Your task to perform on an android device: Open the Play Movies app and select the watchlist tab. Image 0: 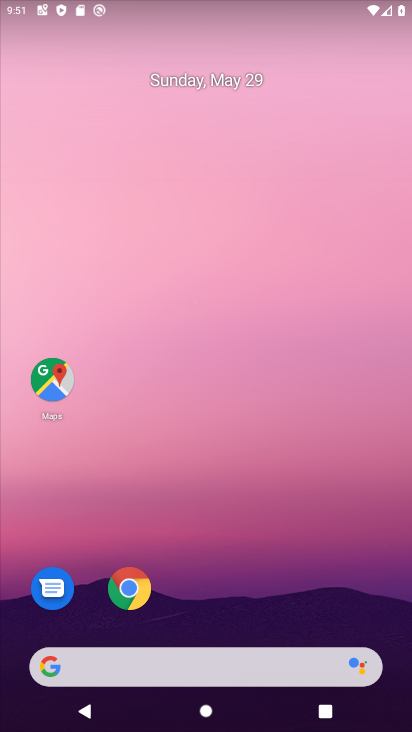
Step 0: drag from (283, 578) to (292, 91)
Your task to perform on an android device: Open the Play Movies app and select the watchlist tab. Image 1: 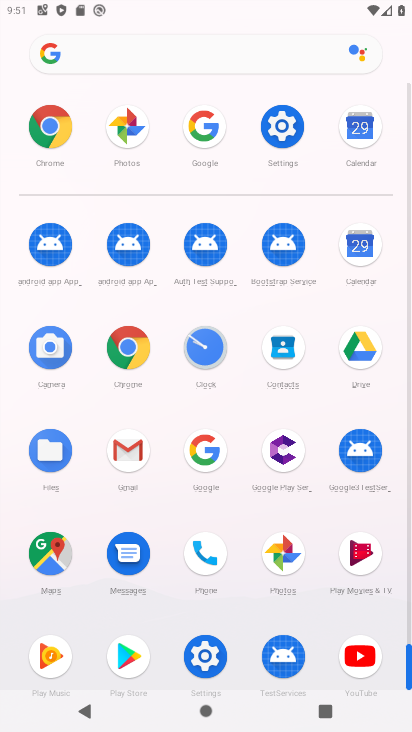
Step 1: click (356, 558)
Your task to perform on an android device: Open the Play Movies app and select the watchlist tab. Image 2: 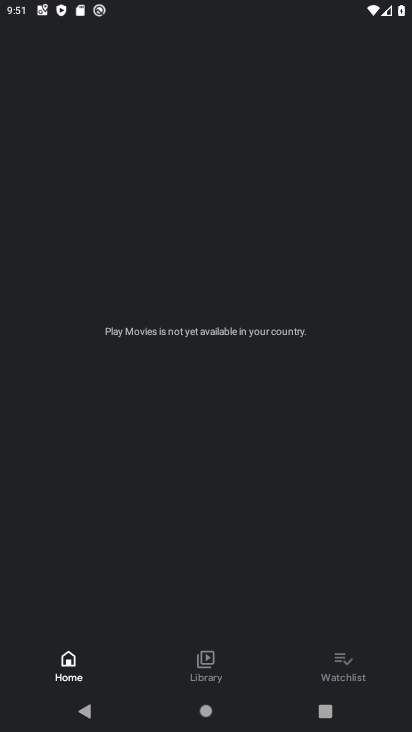
Step 2: click (359, 676)
Your task to perform on an android device: Open the Play Movies app and select the watchlist tab. Image 3: 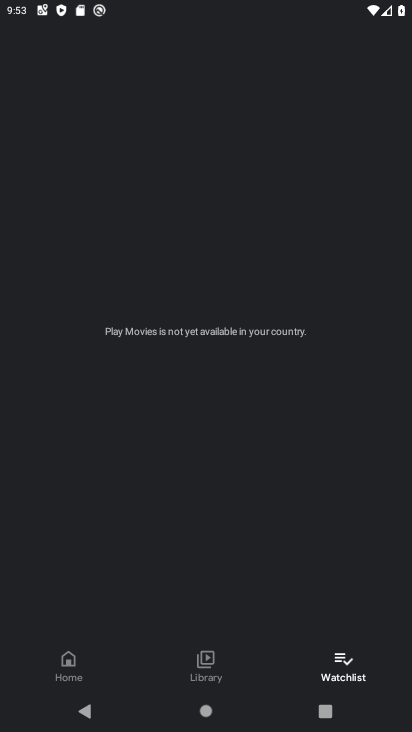
Step 3: task complete